Your task to perform on an android device: turn on data saver in the chrome app Image 0: 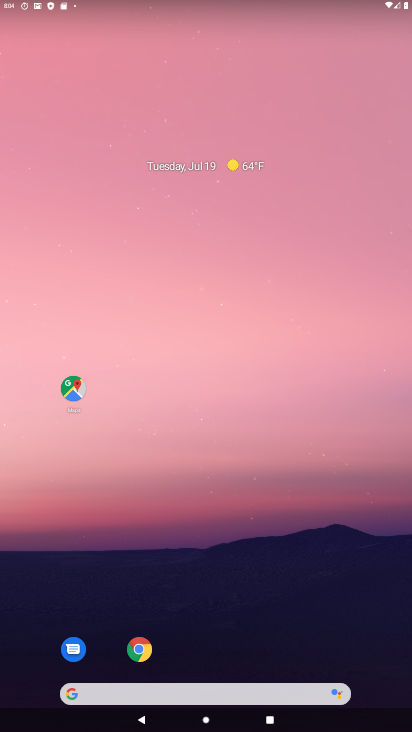
Step 0: click (346, 45)
Your task to perform on an android device: turn on data saver in the chrome app Image 1: 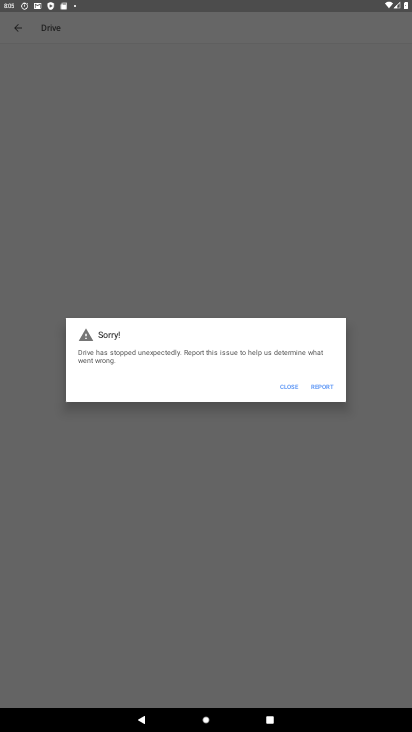
Step 1: press home button
Your task to perform on an android device: turn on data saver in the chrome app Image 2: 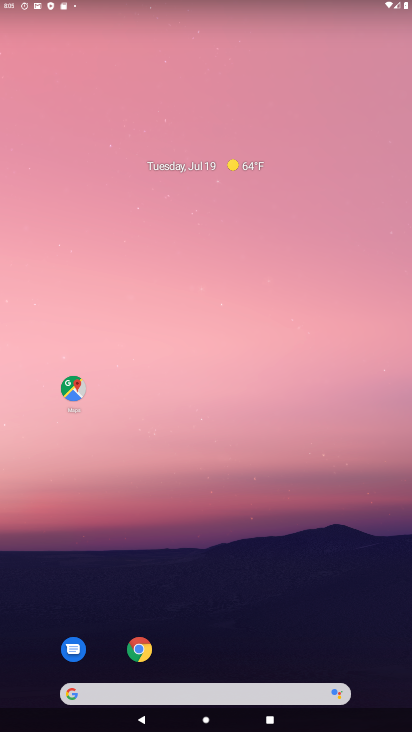
Step 2: drag from (268, 635) to (266, 0)
Your task to perform on an android device: turn on data saver in the chrome app Image 3: 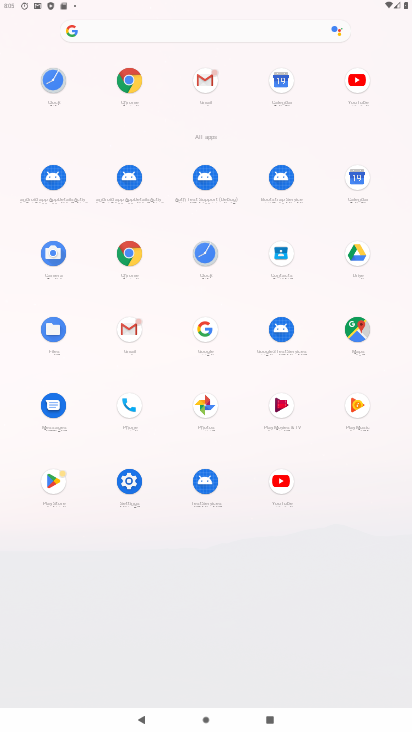
Step 3: click (139, 245)
Your task to perform on an android device: turn on data saver in the chrome app Image 4: 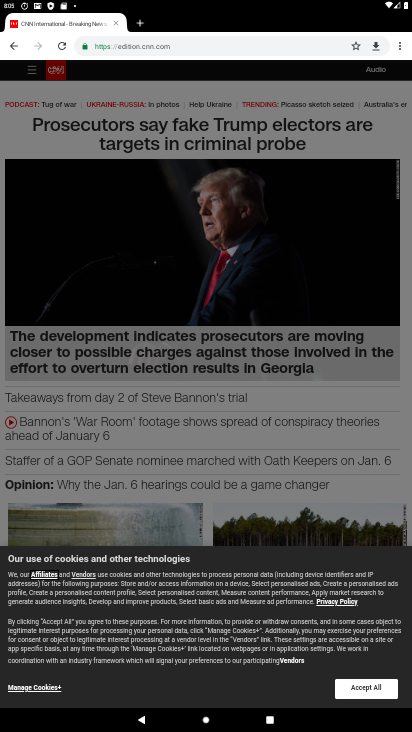
Step 4: drag from (394, 45) to (340, 283)
Your task to perform on an android device: turn on data saver in the chrome app Image 5: 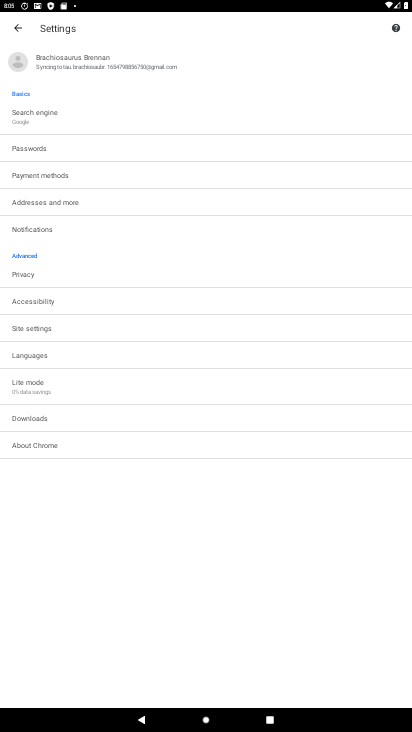
Step 5: click (107, 391)
Your task to perform on an android device: turn on data saver in the chrome app Image 6: 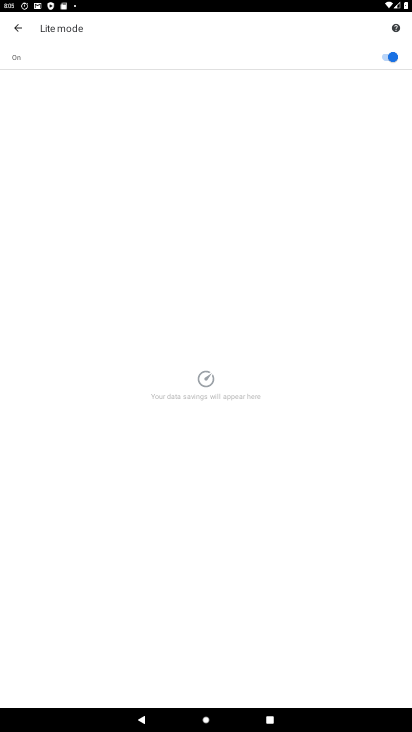
Step 6: task complete